Your task to perform on an android device: check battery use Image 0: 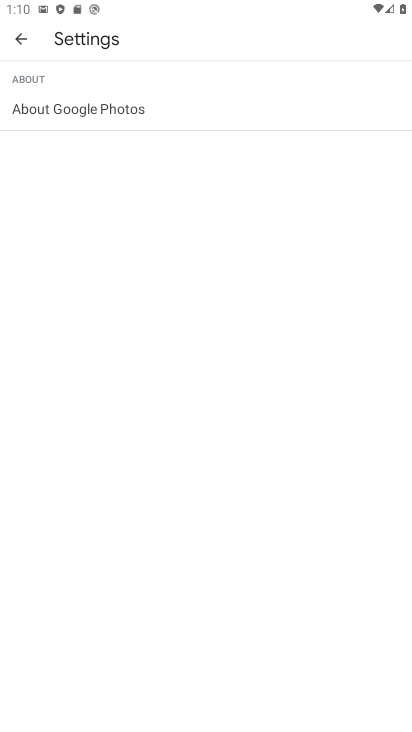
Step 0: press home button
Your task to perform on an android device: check battery use Image 1: 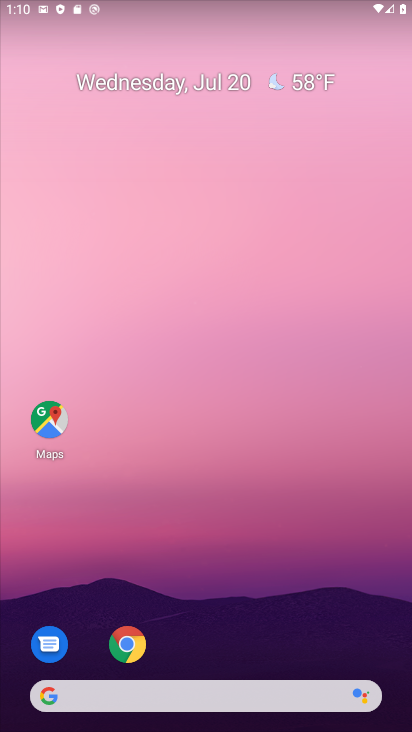
Step 1: drag from (205, 513) to (213, 97)
Your task to perform on an android device: check battery use Image 2: 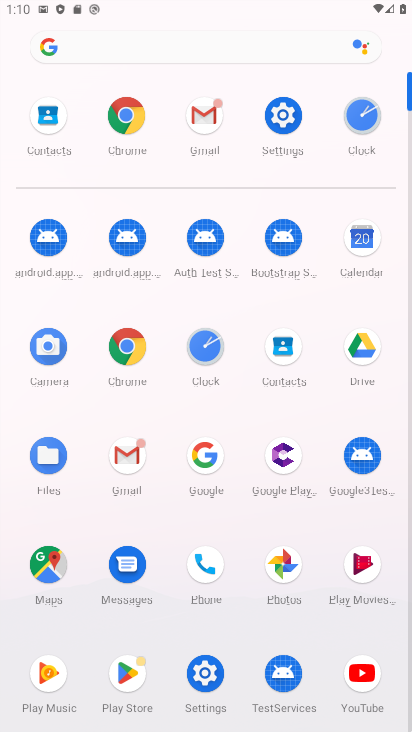
Step 2: click (285, 114)
Your task to perform on an android device: check battery use Image 3: 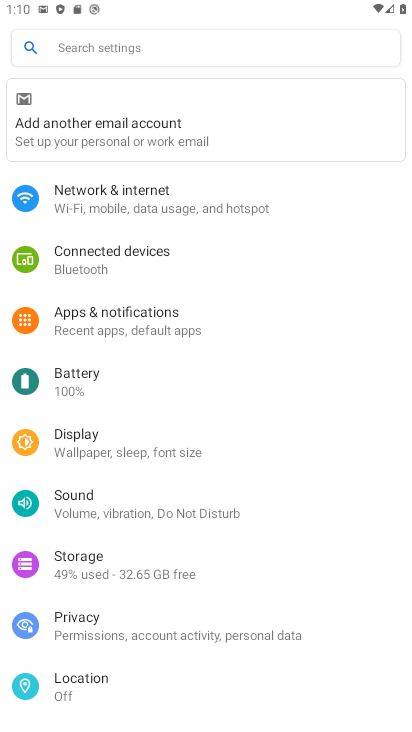
Step 3: click (89, 374)
Your task to perform on an android device: check battery use Image 4: 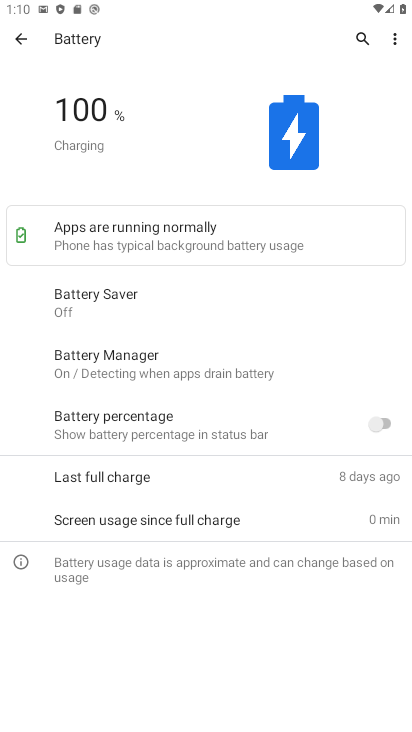
Step 4: click (390, 45)
Your task to perform on an android device: check battery use Image 5: 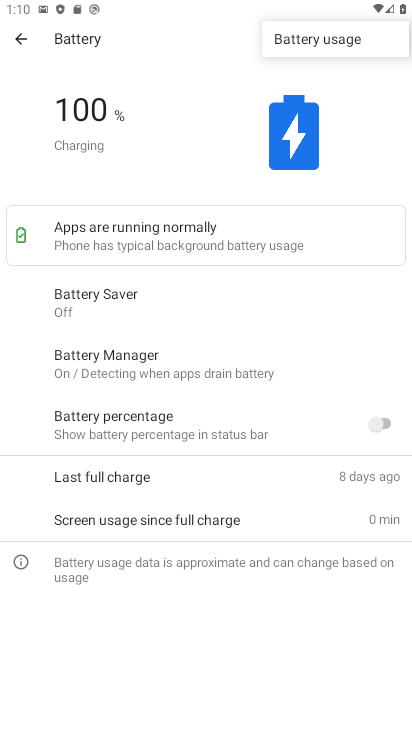
Step 5: click (332, 48)
Your task to perform on an android device: check battery use Image 6: 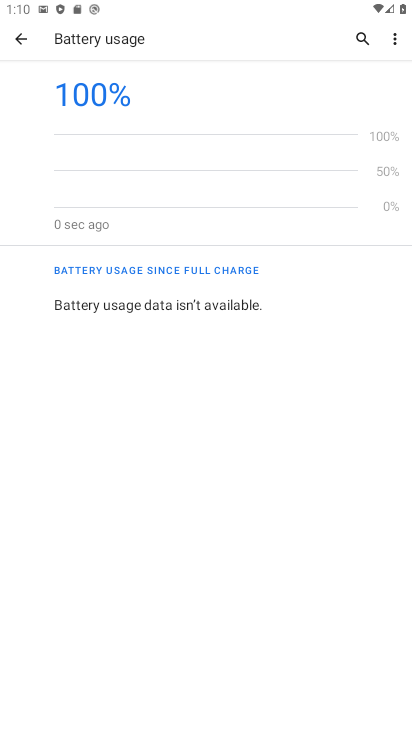
Step 6: task complete